Your task to perform on an android device: Go to privacy settings Image 0: 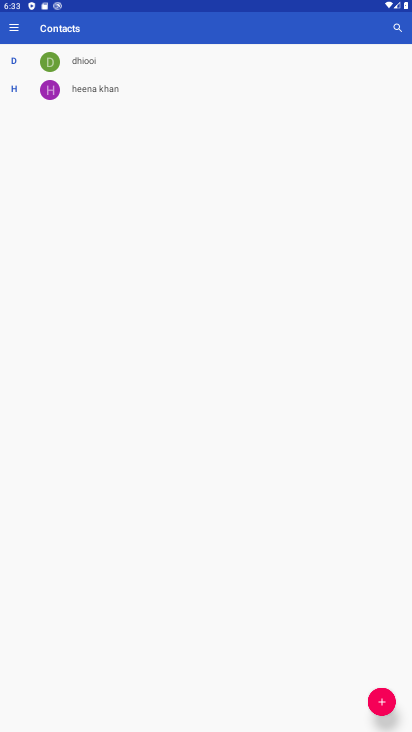
Step 0: press home button
Your task to perform on an android device: Go to privacy settings Image 1: 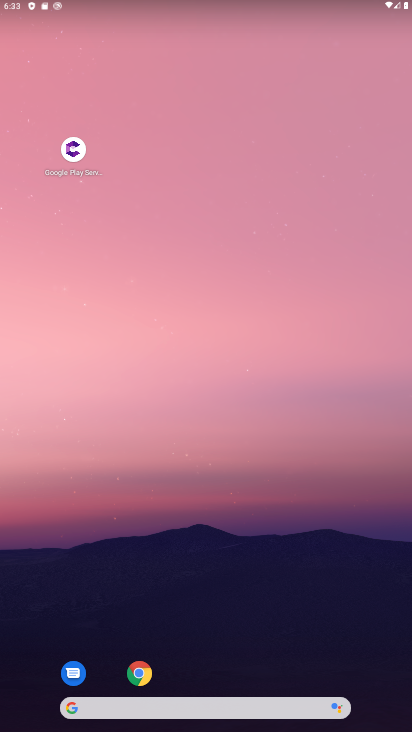
Step 1: drag from (193, 621) to (347, 39)
Your task to perform on an android device: Go to privacy settings Image 2: 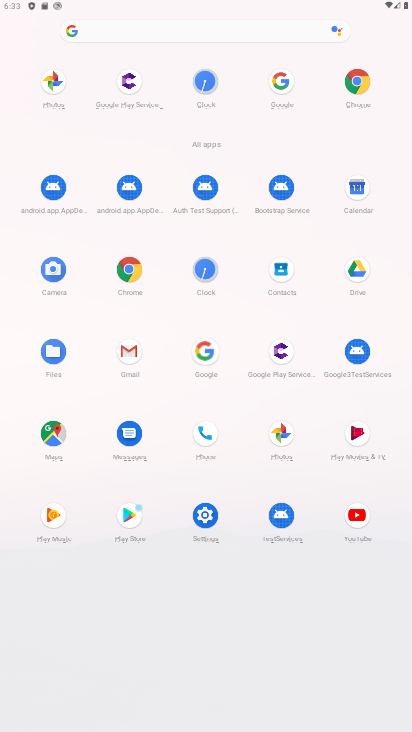
Step 2: click (207, 508)
Your task to perform on an android device: Go to privacy settings Image 3: 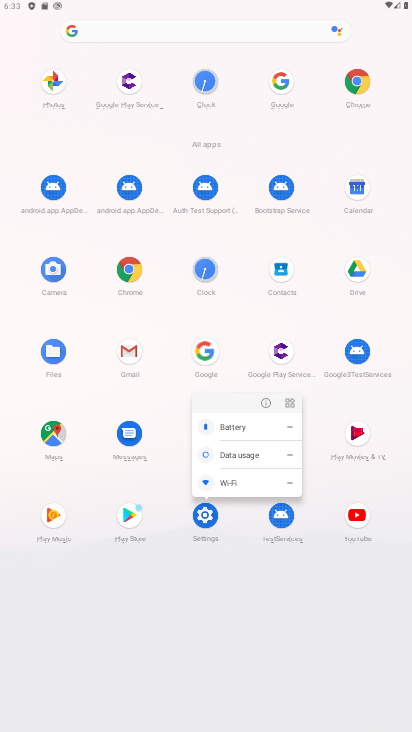
Step 3: click (210, 503)
Your task to perform on an android device: Go to privacy settings Image 4: 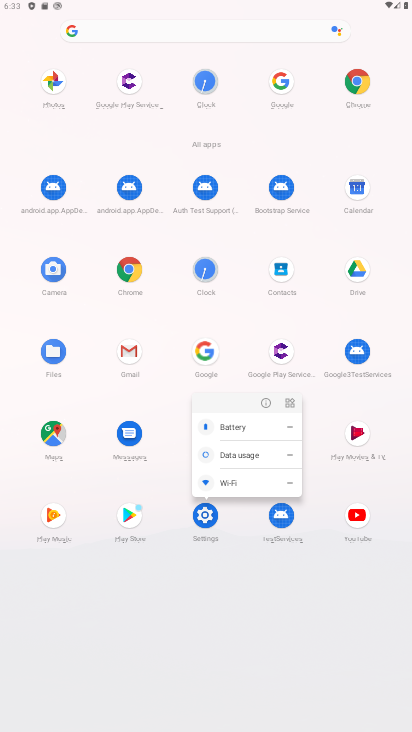
Step 4: click (219, 518)
Your task to perform on an android device: Go to privacy settings Image 5: 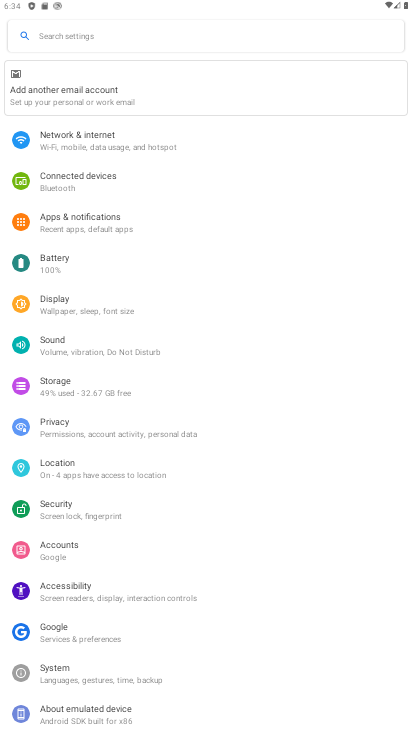
Step 5: click (91, 409)
Your task to perform on an android device: Go to privacy settings Image 6: 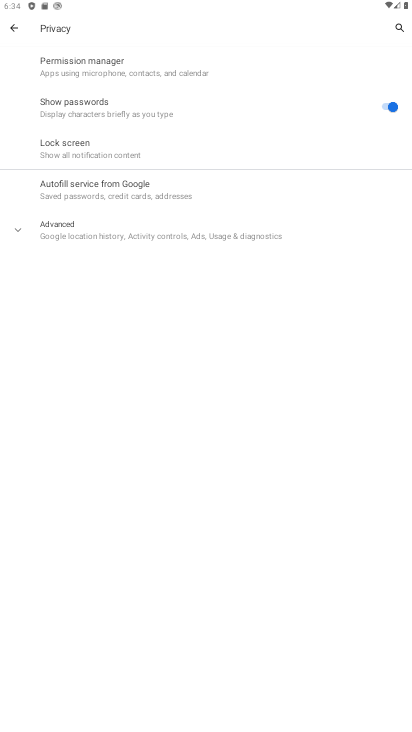
Step 6: task complete